Your task to perform on an android device: turn off javascript in the chrome app Image 0: 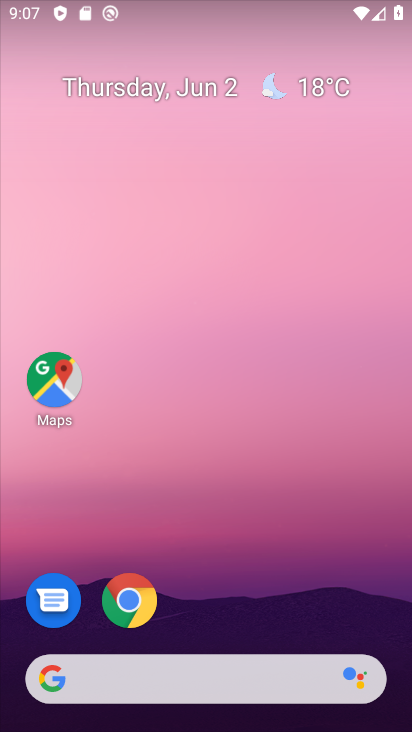
Step 0: drag from (226, 612) to (228, 167)
Your task to perform on an android device: turn off javascript in the chrome app Image 1: 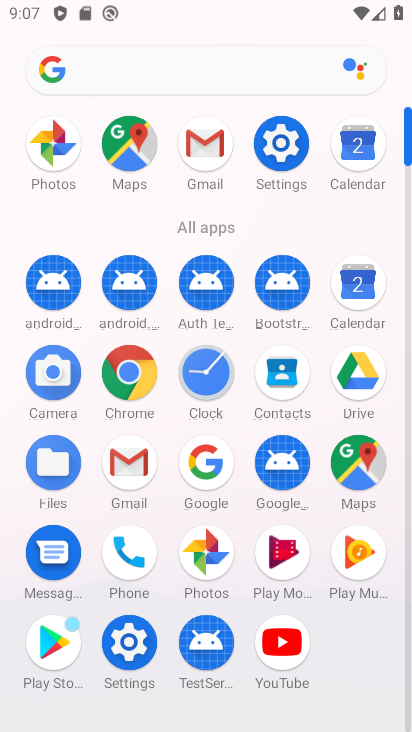
Step 1: click (138, 368)
Your task to perform on an android device: turn off javascript in the chrome app Image 2: 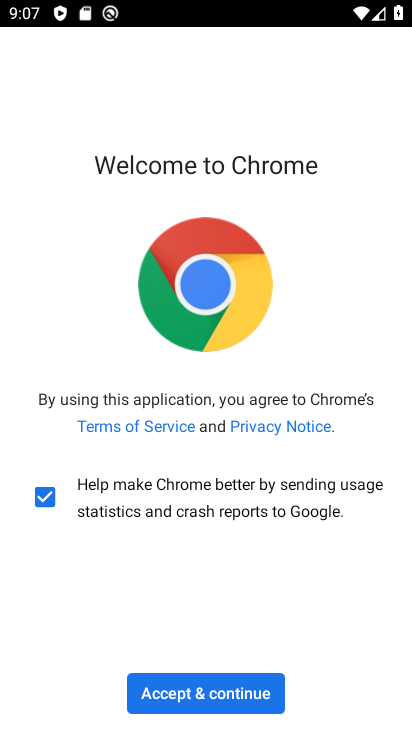
Step 2: click (204, 690)
Your task to perform on an android device: turn off javascript in the chrome app Image 3: 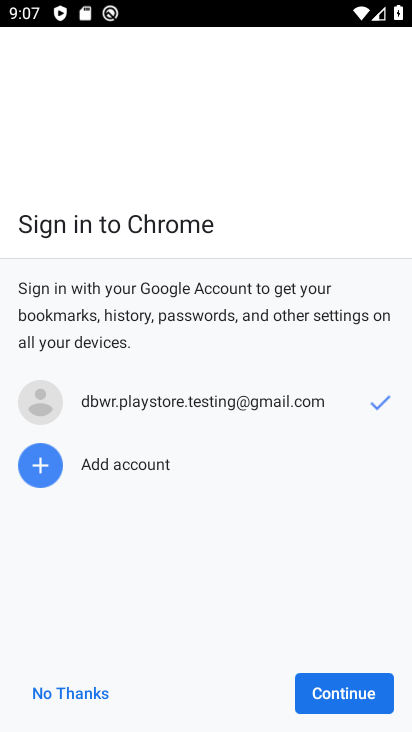
Step 3: click (323, 691)
Your task to perform on an android device: turn off javascript in the chrome app Image 4: 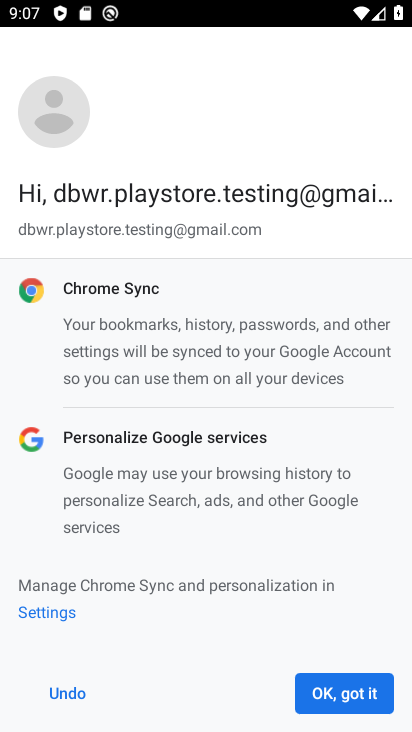
Step 4: click (323, 691)
Your task to perform on an android device: turn off javascript in the chrome app Image 5: 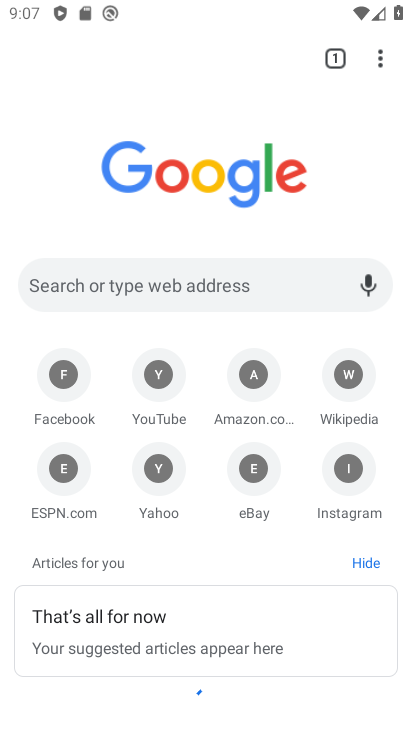
Step 5: click (375, 58)
Your task to perform on an android device: turn off javascript in the chrome app Image 6: 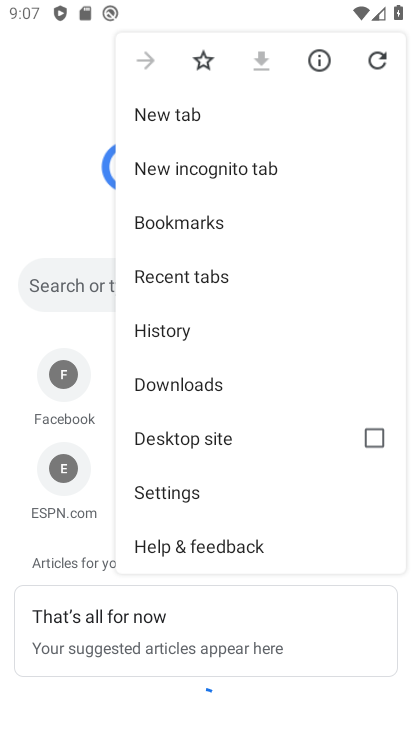
Step 6: click (152, 493)
Your task to perform on an android device: turn off javascript in the chrome app Image 7: 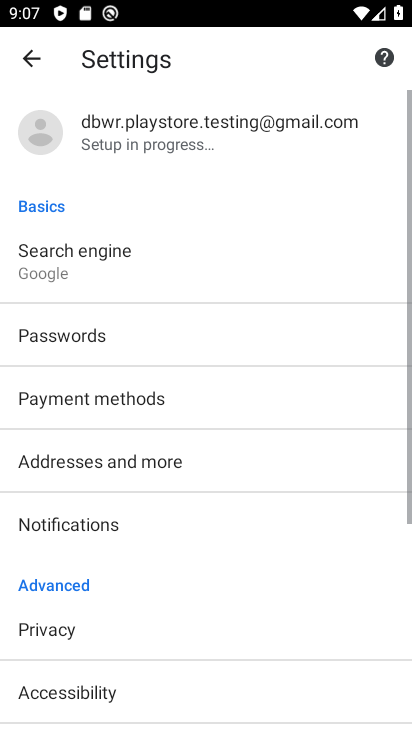
Step 7: drag from (176, 581) to (185, 168)
Your task to perform on an android device: turn off javascript in the chrome app Image 8: 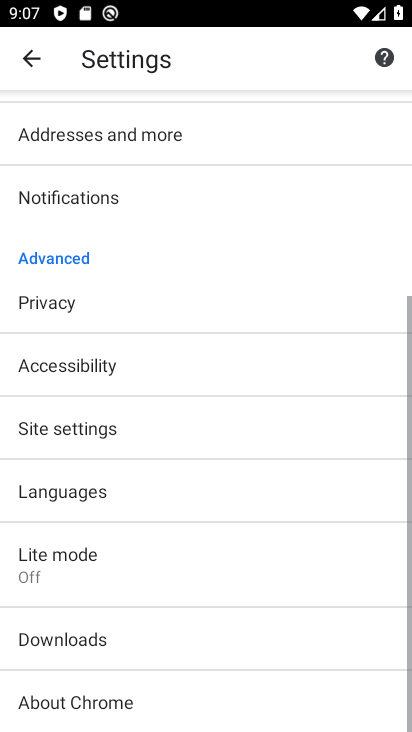
Step 8: click (84, 429)
Your task to perform on an android device: turn off javascript in the chrome app Image 9: 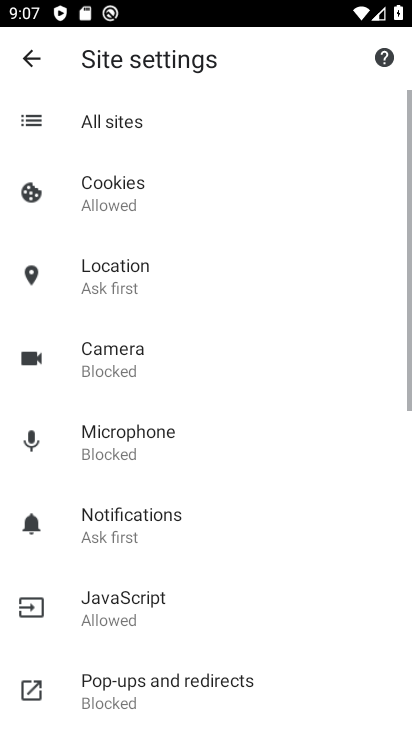
Step 9: drag from (129, 560) to (119, 268)
Your task to perform on an android device: turn off javascript in the chrome app Image 10: 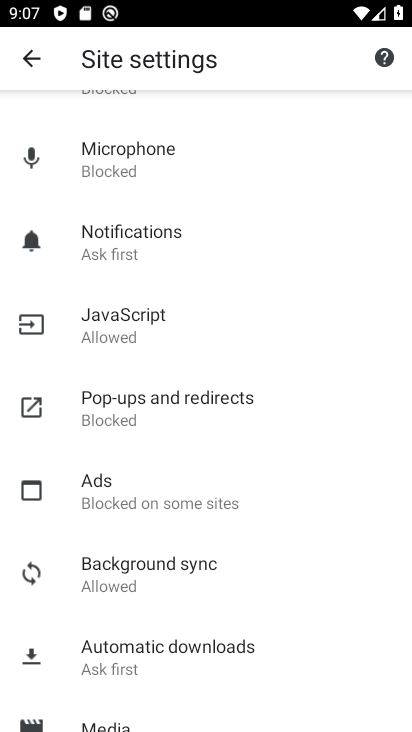
Step 10: click (225, 321)
Your task to perform on an android device: turn off javascript in the chrome app Image 11: 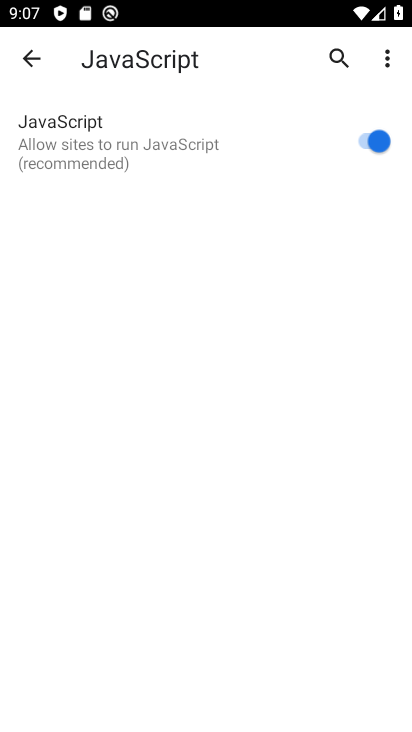
Step 11: click (380, 136)
Your task to perform on an android device: turn off javascript in the chrome app Image 12: 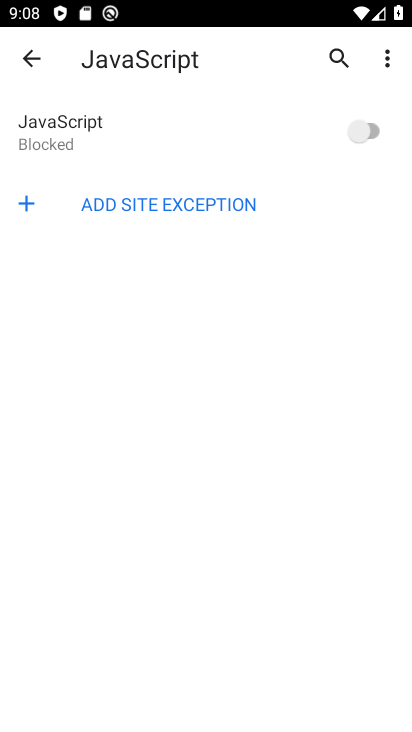
Step 12: task complete